Your task to perform on an android device: What is the recent news? Image 0: 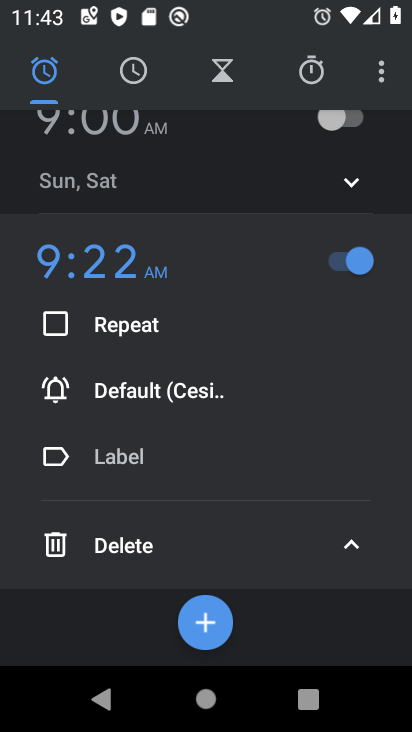
Step 0: press home button
Your task to perform on an android device: What is the recent news? Image 1: 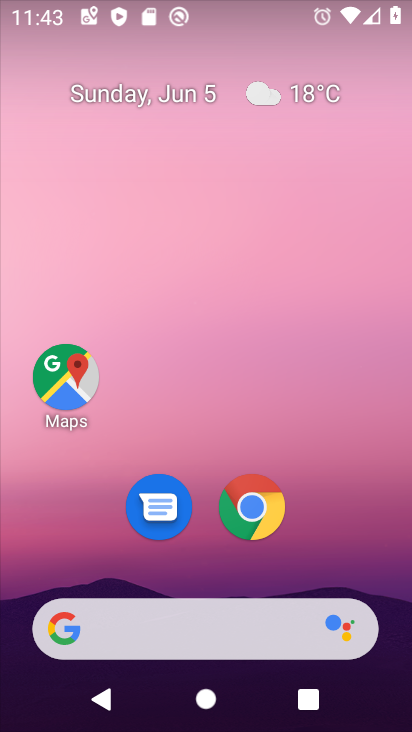
Step 1: task complete